Your task to perform on an android device: turn on javascript in the chrome app Image 0: 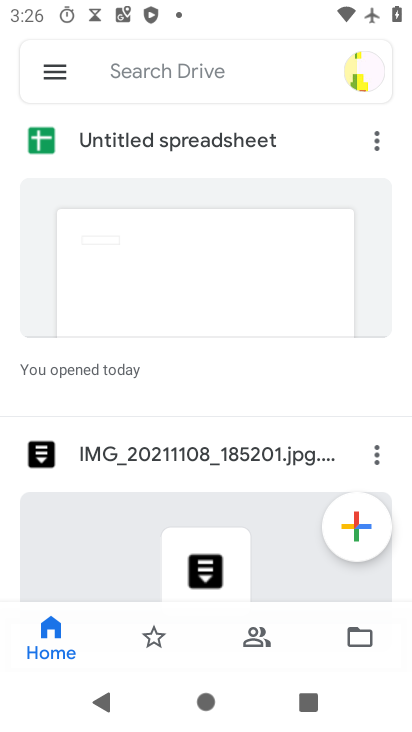
Step 0: press home button
Your task to perform on an android device: turn on javascript in the chrome app Image 1: 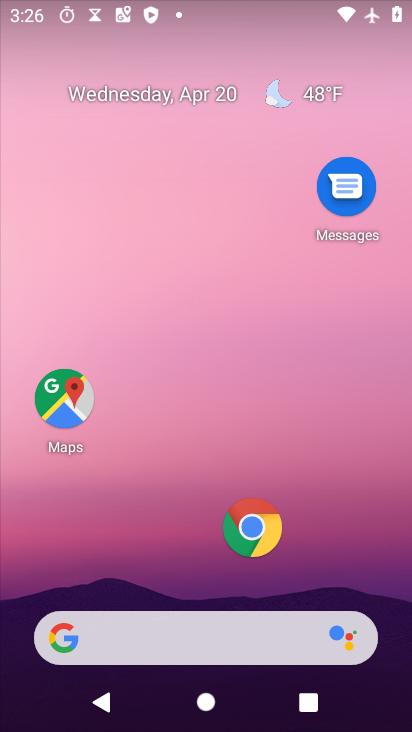
Step 1: drag from (158, 633) to (313, 153)
Your task to perform on an android device: turn on javascript in the chrome app Image 2: 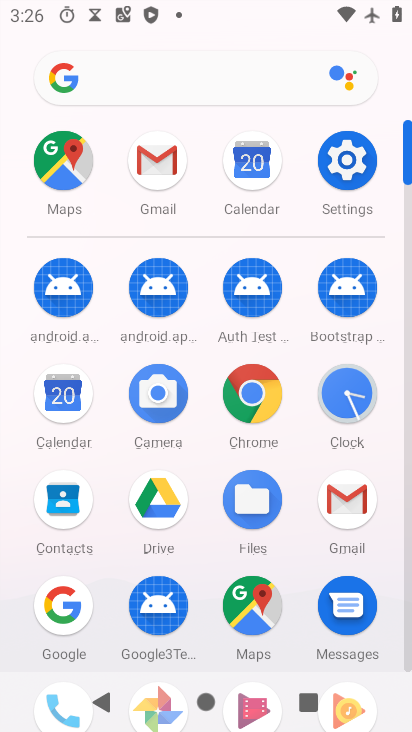
Step 2: click (260, 396)
Your task to perform on an android device: turn on javascript in the chrome app Image 3: 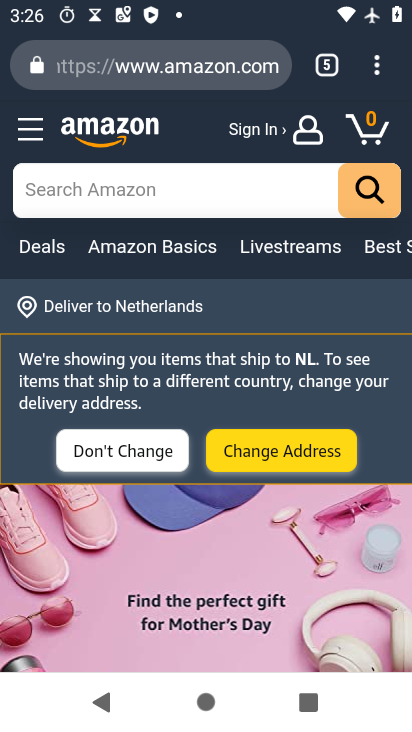
Step 3: click (374, 77)
Your task to perform on an android device: turn on javascript in the chrome app Image 4: 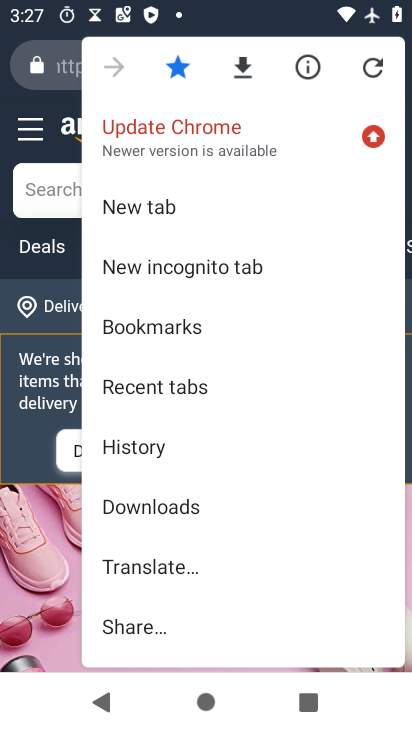
Step 4: drag from (233, 522) to (398, 177)
Your task to perform on an android device: turn on javascript in the chrome app Image 5: 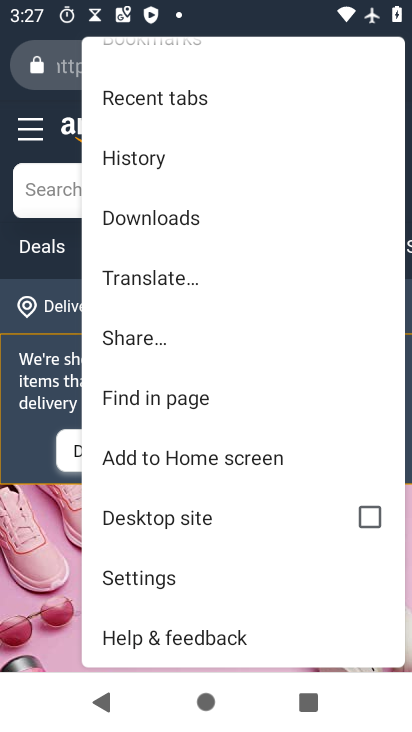
Step 5: click (160, 573)
Your task to perform on an android device: turn on javascript in the chrome app Image 6: 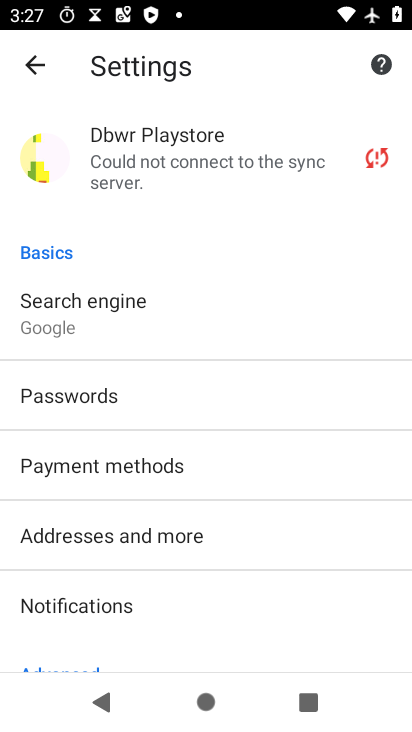
Step 6: drag from (174, 592) to (266, 235)
Your task to perform on an android device: turn on javascript in the chrome app Image 7: 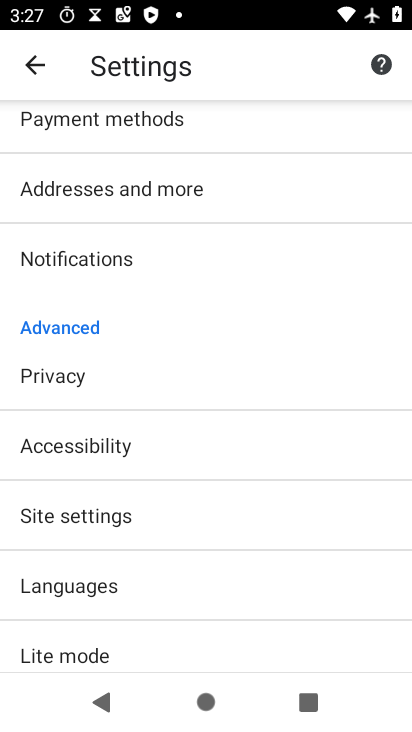
Step 7: click (73, 523)
Your task to perform on an android device: turn on javascript in the chrome app Image 8: 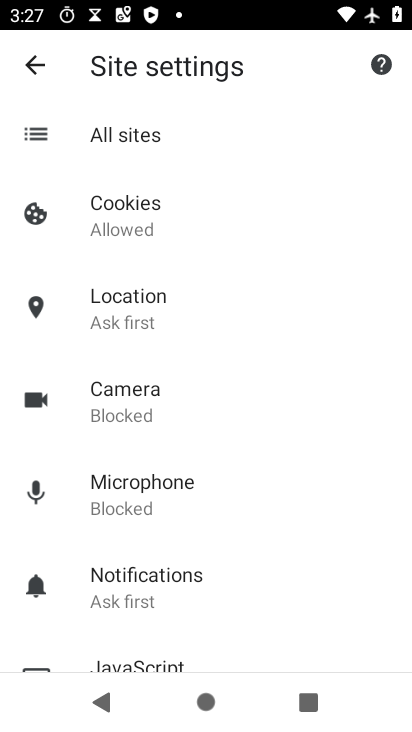
Step 8: drag from (174, 534) to (252, 314)
Your task to perform on an android device: turn on javascript in the chrome app Image 9: 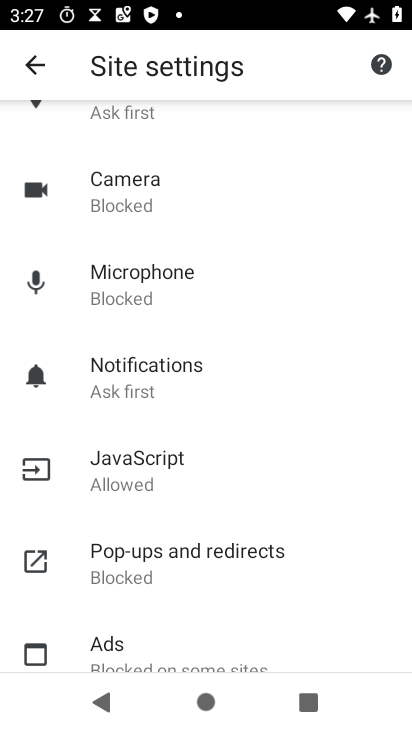
Step 9: click (155, 466)
Your task to perform on an android device: turn on javascript in the chrome app Image 10: 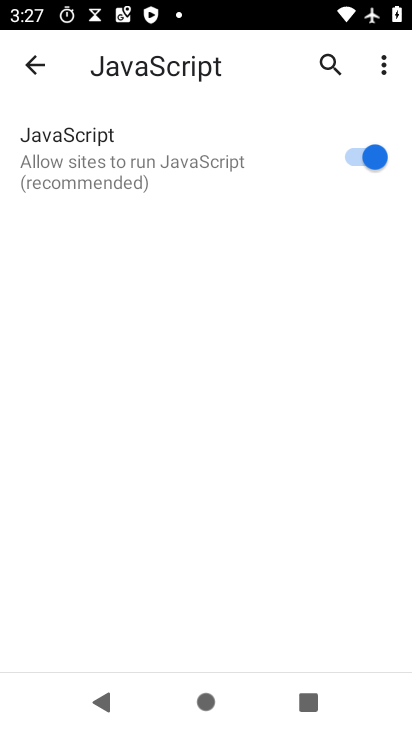
Step 10: task complete